Your task to perform on an android device: Go to Maps Image 0: 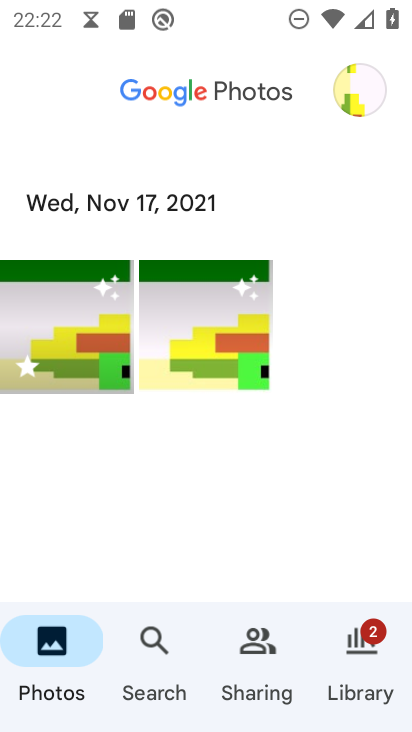
Step 0: press home button
Your task to perform on an android device: Go to Maps Image 1: 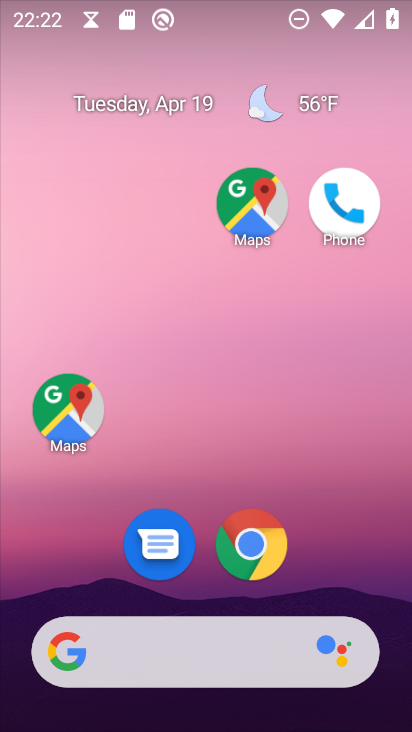
Step 1: drag from (164, 657) to (310, 131)
Your task to perform on an android device: Go to Maps Image 2: 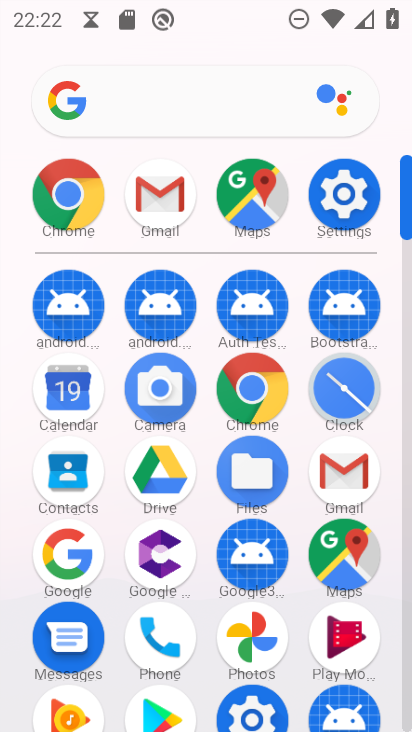
Step 2: click (253, 208)
Your task to perform on an android device: Go to Maps Image 3: 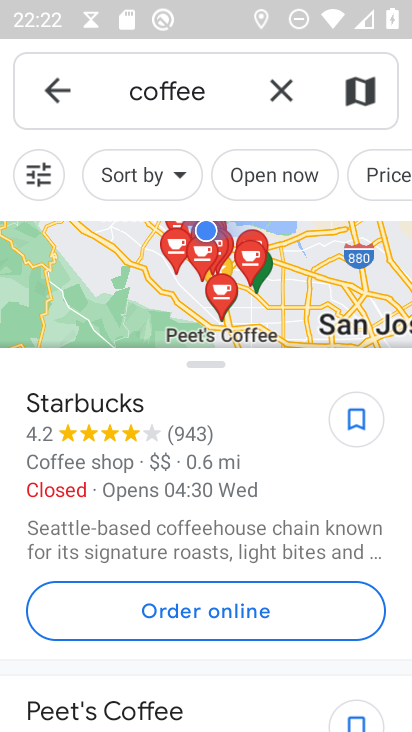
Step 3: click (52, 87)
Your task to perform on an android device: Go to Maps Image 4: 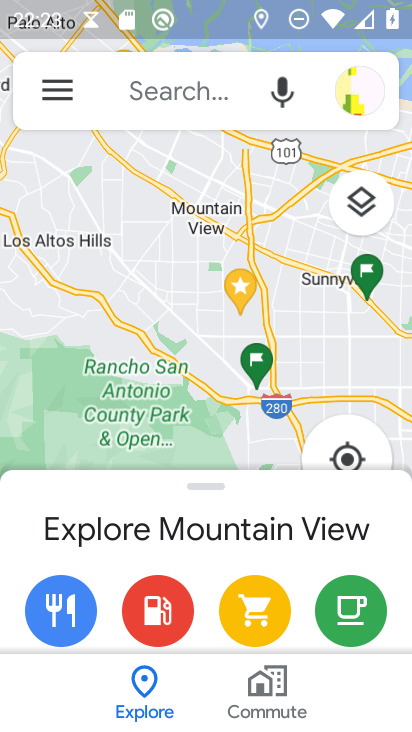
Step 4: task complete